Your task to perform on an android device: Play the last video I watched on Youtube Image 0: 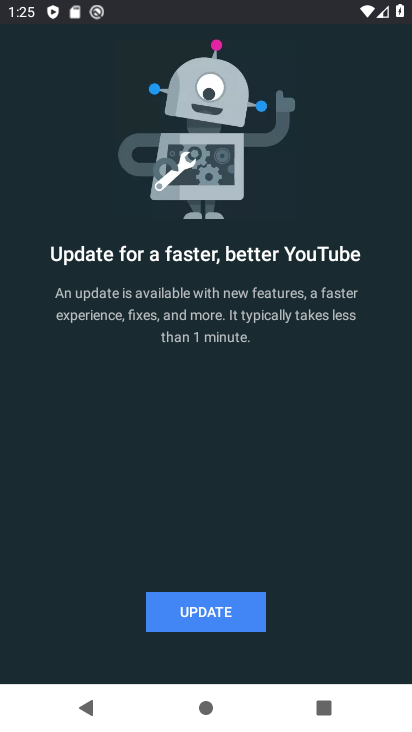
Step 0: press home button
Your task to perform on an android device: Play the last video I watched on Youtube Image 1: 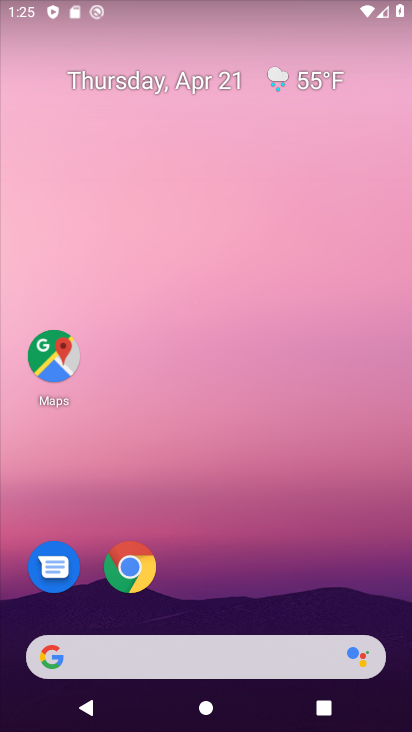
Step 1: drag from (202, 592) to (257, 105)
Your task to perform on an android device: Play the last video I watched on Youtube Image 2: 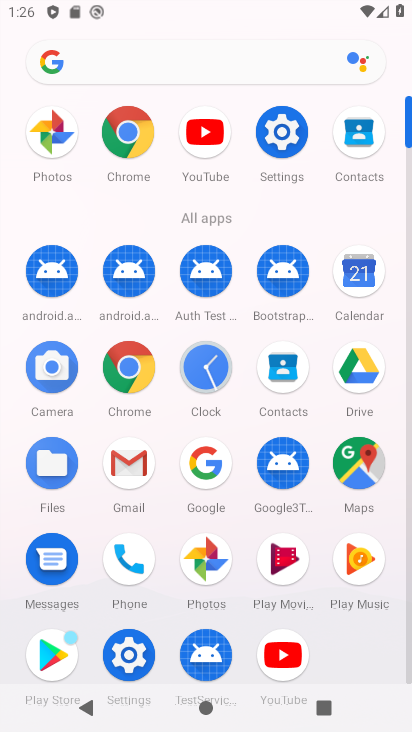
Step 2: click (282, 647)
Your task to perform on an android device: Play the last video I watched on Youtube Image 3: 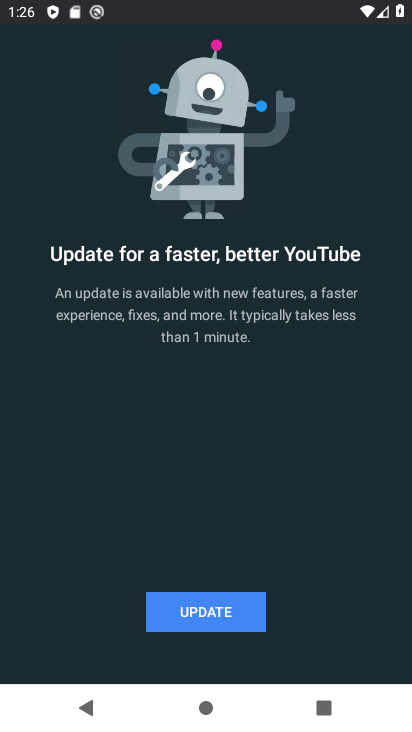
Step 3: click (200, 597)
Your task to perform on an android device: Play the last video I watched on Youtube Image 4: 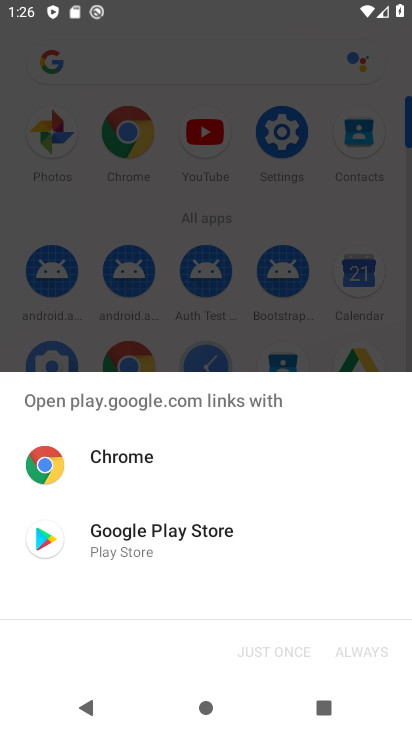
Step 4: click (132, 558)
Your task to perform on an android device: Play the last video I watched on Youtube Image 5: 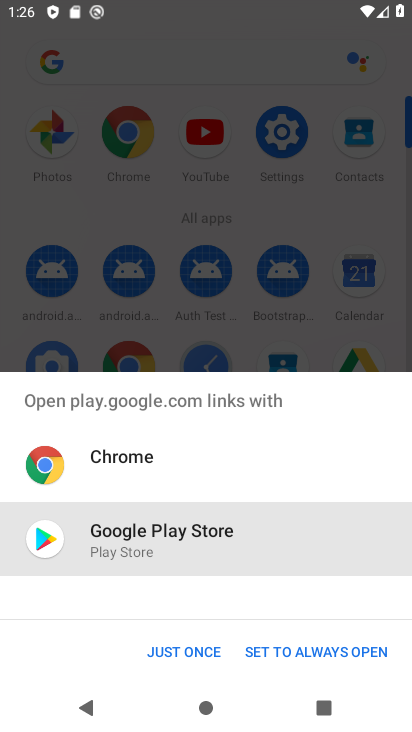
Step 5: click (172, 648)
Your task to perform on an android device: Play the last video I watched on Youtube Image 6: 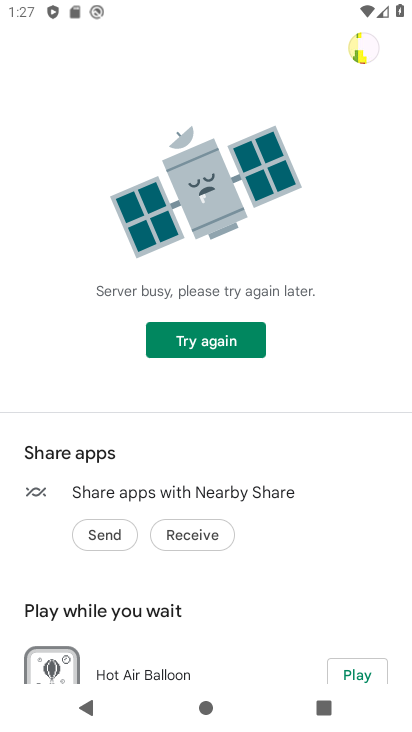
Step 6: click (205, 336)
Your task to perform on an android device: Play the last video I watched on Youtube Image 7: 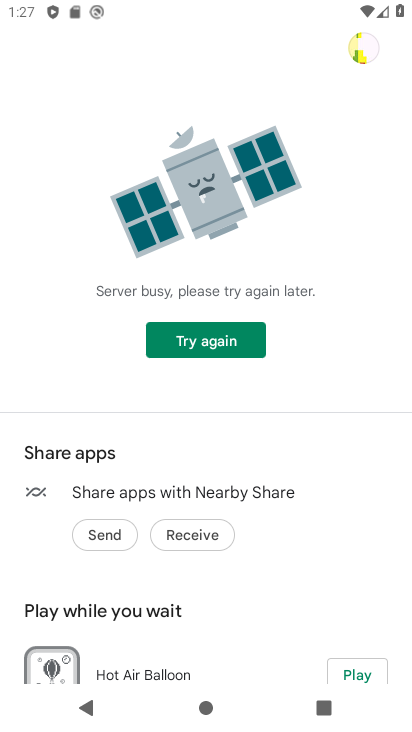
Step 7: task complete